Your task to perform on an android device: turn on translation in the chrome app Image 0: 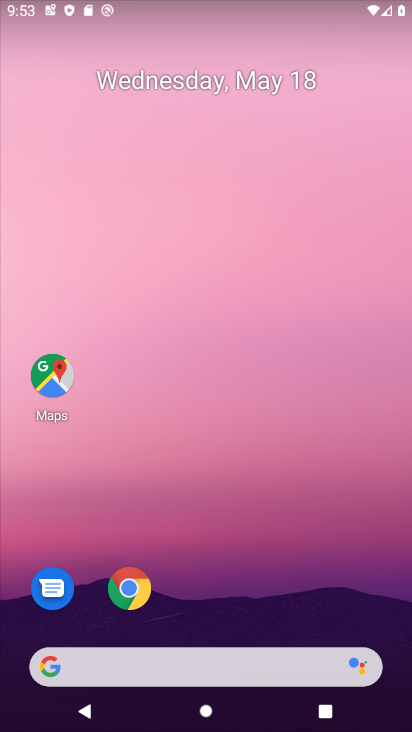
Step 0: drag from (258, 651) to (214, 212)
Your task to perform on an android device: turn on translation in the chrome app Image 1: 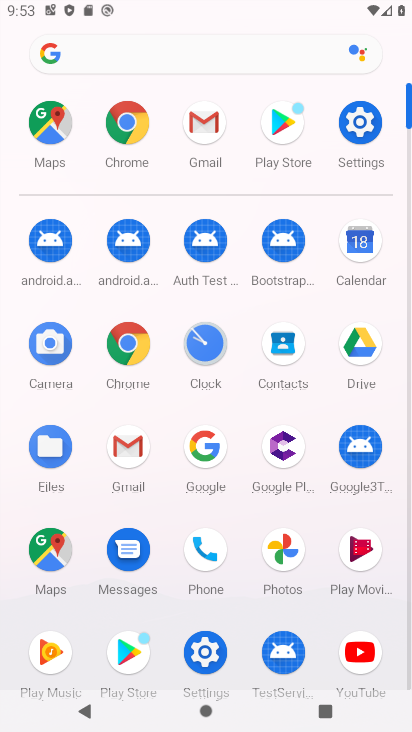
Step 1: click (127, 124)
Your task to perform on an android device: turn on translation in the chrome app Image 2: 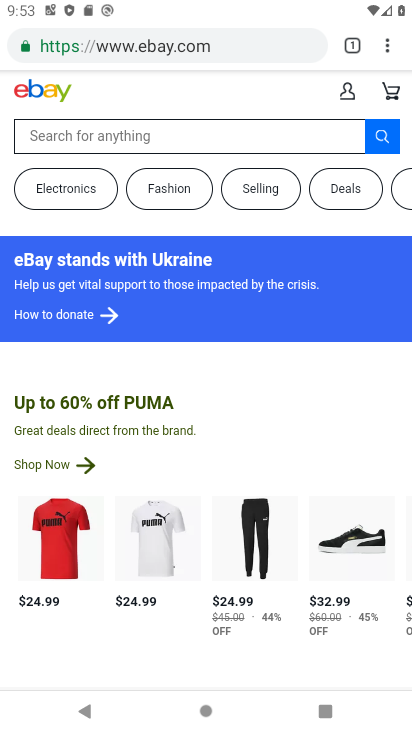
Step 2: click (384, 54)
Your task to perform on an android device: turn on translation in the chrome app Image 3: 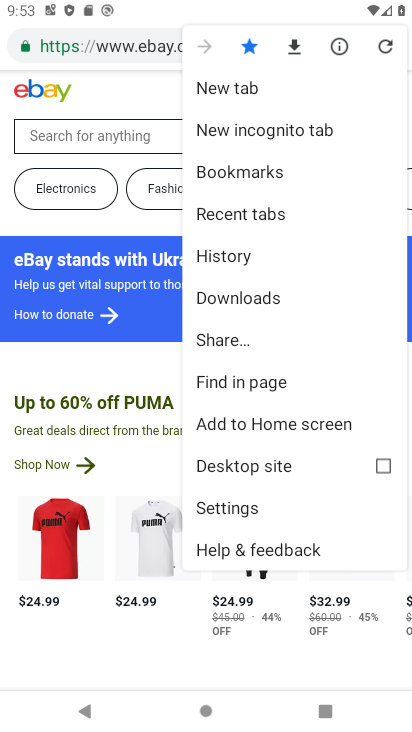
Step 3: click (239, 504)
Your task to perform on an android device: turn on translation in the chrome app Image 4: 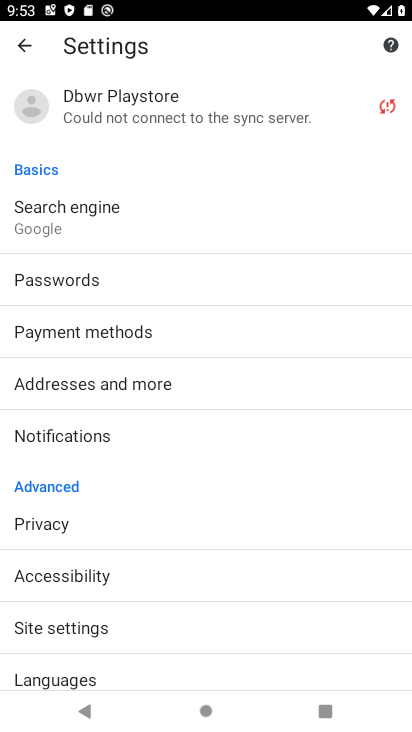
Step 4: click (88, 672)
Your task to perform on an android device: turn on translation in the chrome app Image 5: 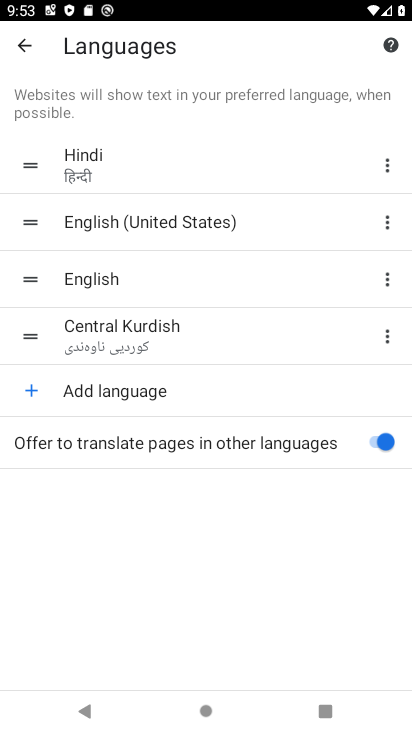
Step 5: click (369, 443)
Your task to perform on an android device: turn on translation in the chrome app Image 6: 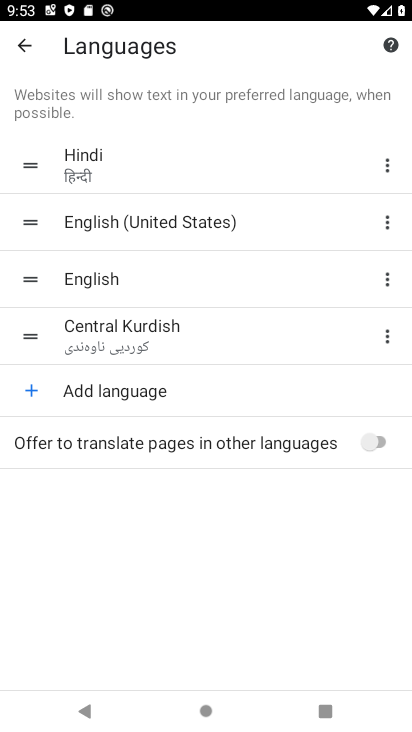
Step 6: click (369, 443)
Your task to perform on an android device: turn on translation in the chrome app Image 7: 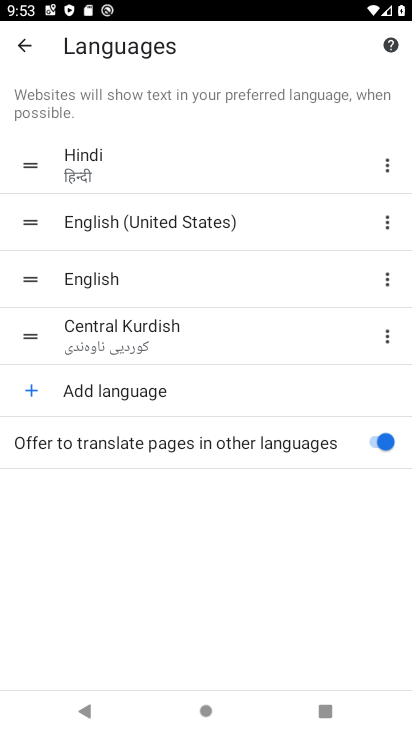
Step 7: task complete